Your task to perform on an android device: turn on priority inbox in the gmail app Image 0: 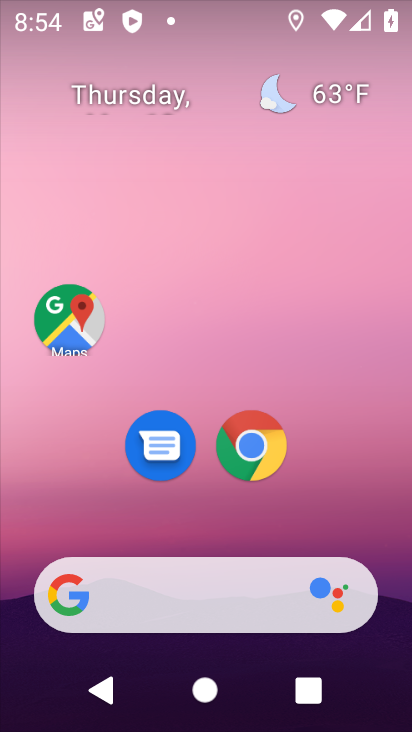
Step 0: drag from (204, 508) to (278, 7)
Your task to perform on an android device: turn on priority inbox in the gmail app Image 1: 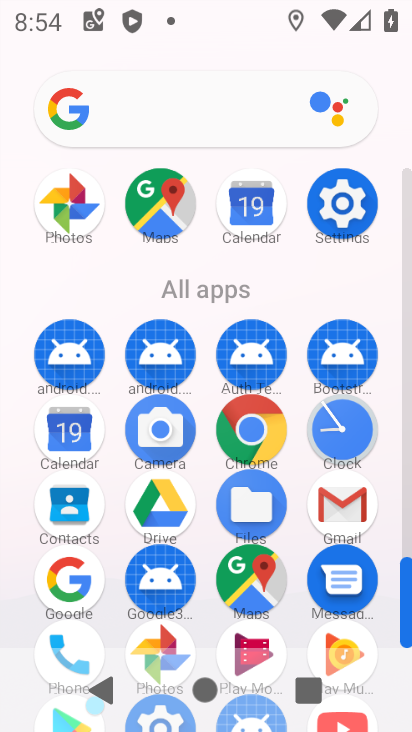
Step 1: click (335, 504)
Your task to perform on an android device: turn on priority inbox in the gmail app Image 2: 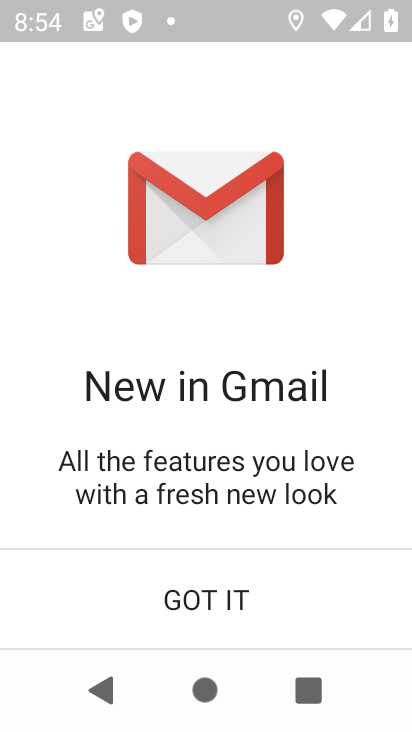
Step 2: click (223, 610)
Your task to perform on an android device: turn on priority inbox in the gmail app Image 3: 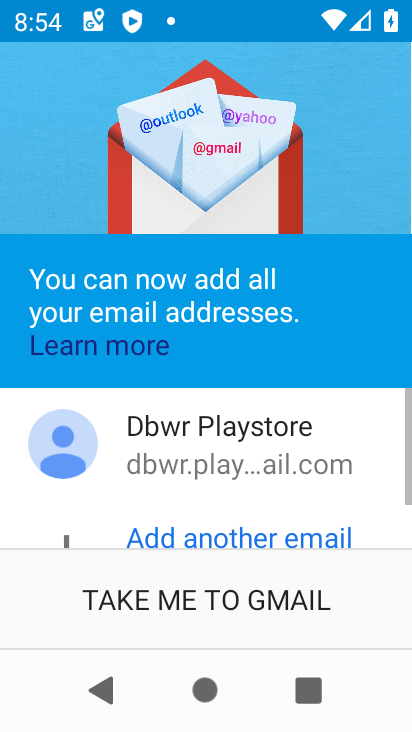
Step 3: click (221, 612)
Your task to perform on an android device: turn on priority inbox in the gmail app Image 4: 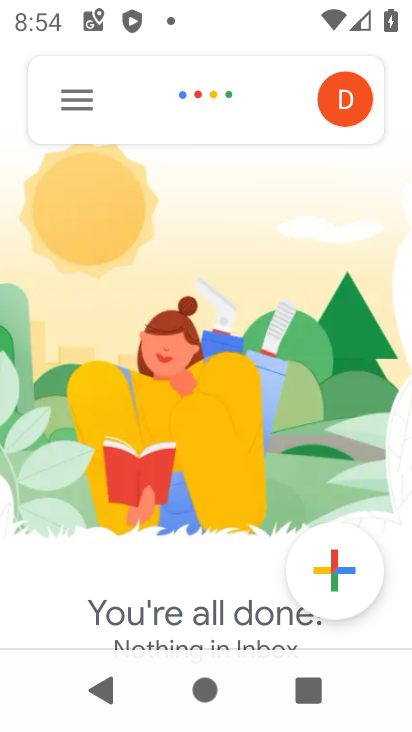
Step 4: click (64, 94)
Your task to perform on an android device: turn on priority inbox in the gmail app Image 5: 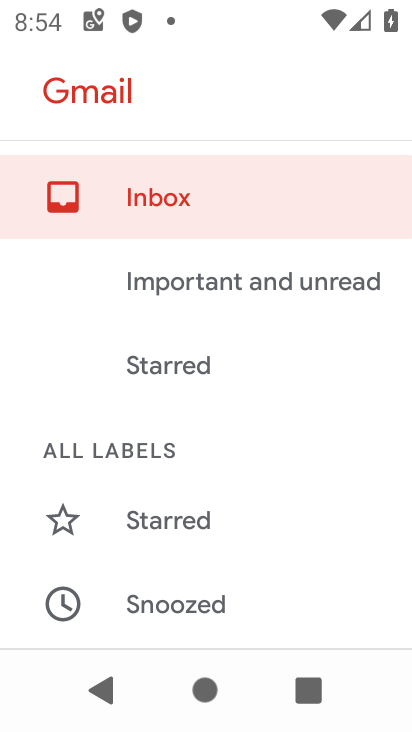
Step 5: drag from (145, 582) to (278, 5)
Your task to perform on an android device: turn on priority inbox in the gmail app Image 6: 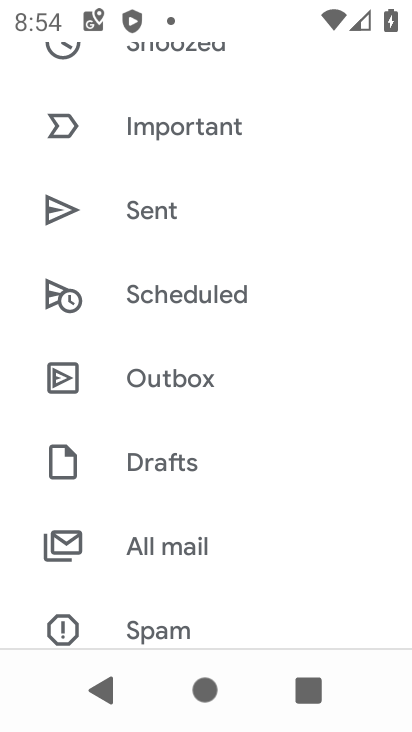
Step 6: drag from (219, 550) to (277, 57)
Your task to perform on an android device: turn on priority inbox in the gmail app Image 7: 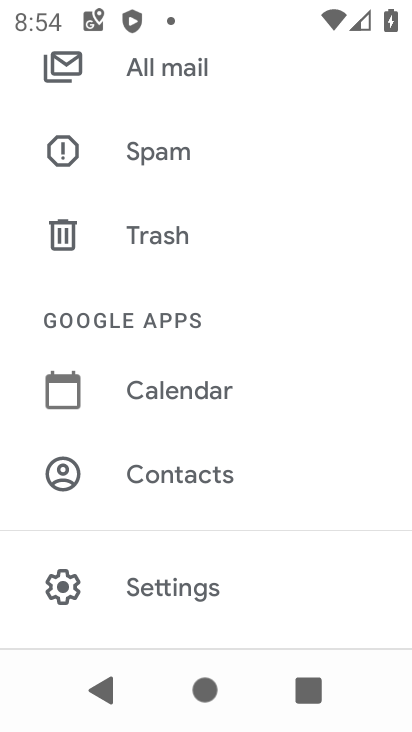
Step 7: click (164, 589)
Your task to perform on an android device: turn on priority inbox in the gmail app Image 8: 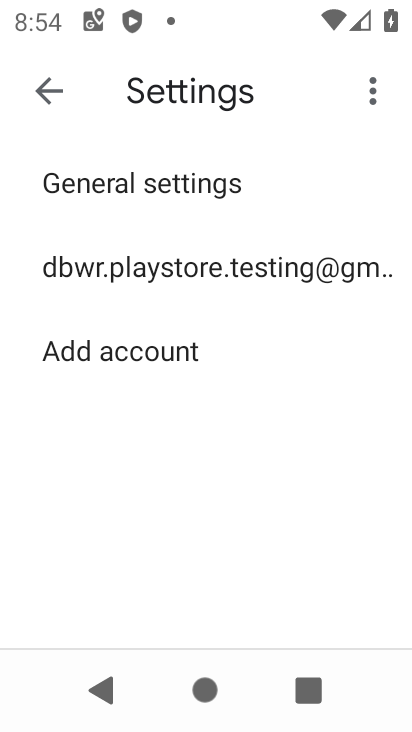
Step 8: click (181, 271)
Your task to perform on an android device: turn on priority inbox in the gmail app Image 9: 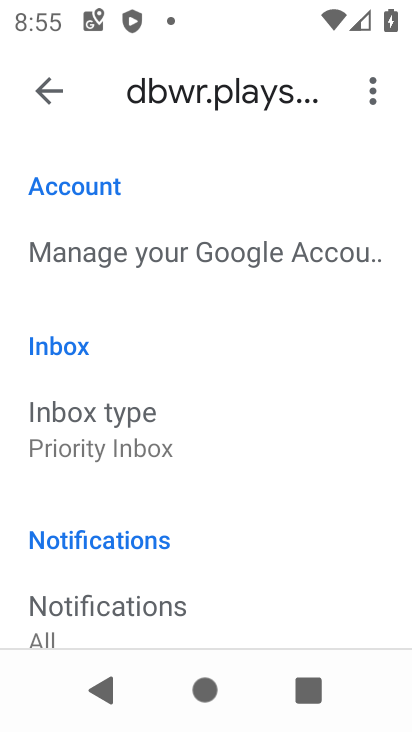
Step 9: click (156, 427)
Your task to perform on an android device: turn on priority inbox in the gmail app Image 10: 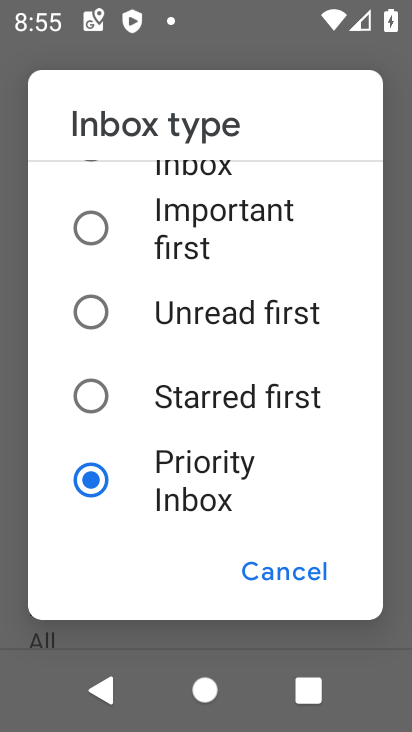
Step 10: task complete